Your task to perform on an android device: change the clock display to show seconds Image 0: 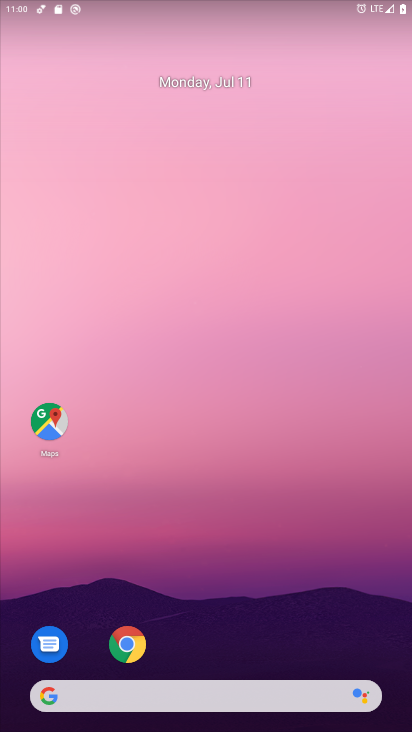
Step 0: drag from (288, 623) to (281, 390)
Your task to perform on an android device: change the clock display to show seconds Image 1: 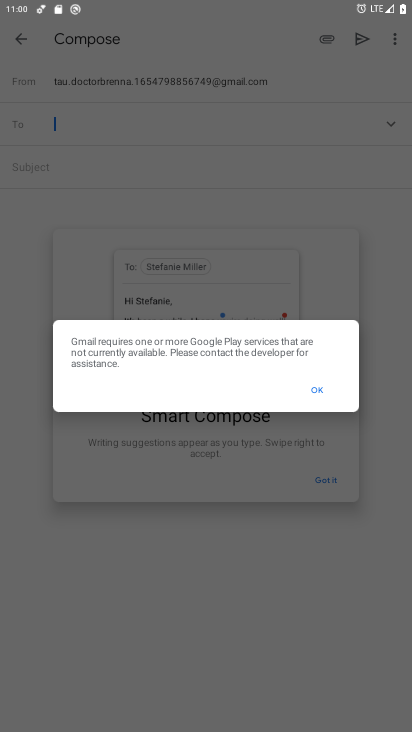
Step 1: click (319, 375)
Your task to perform on an android device: change the clock display to show seconds Image 2: 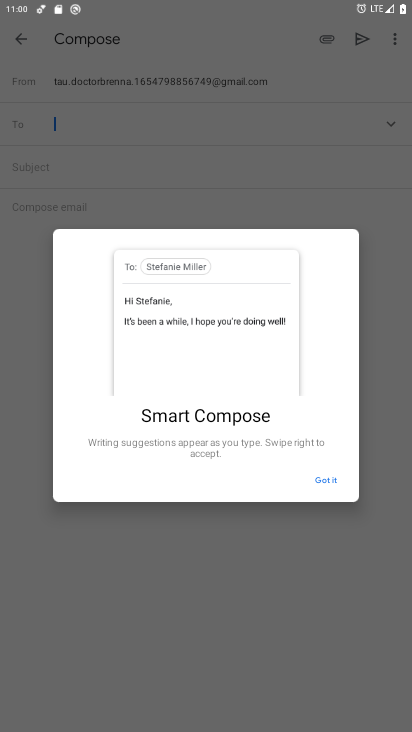
Step 2: click (319, 490)
Your task to perform on an android device: change the clock display to show seconds Image 3: 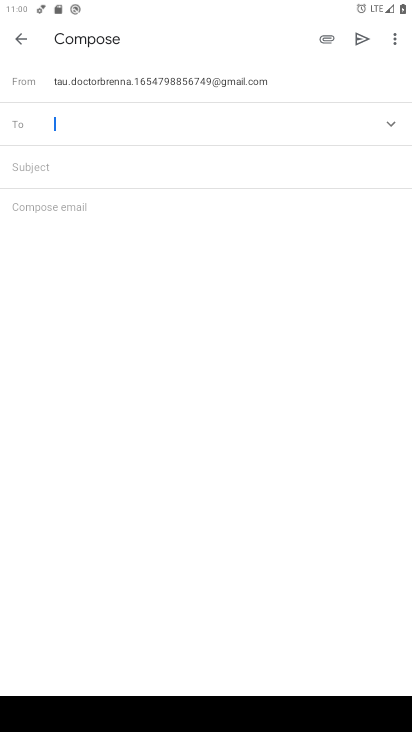
Step 3: press home button
Your task to perform on an android device: change the clock display to show seconds Image 4: 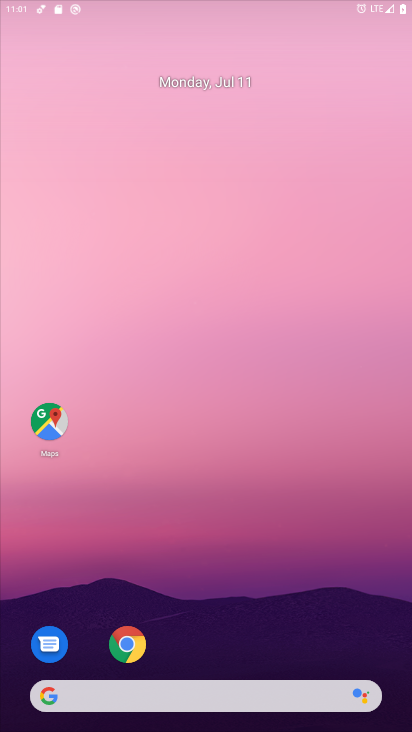
Step 4: drag from (237, 626) to (229, 206)
Your task to perform on an android device: change the clock display to show seconds Image 5: 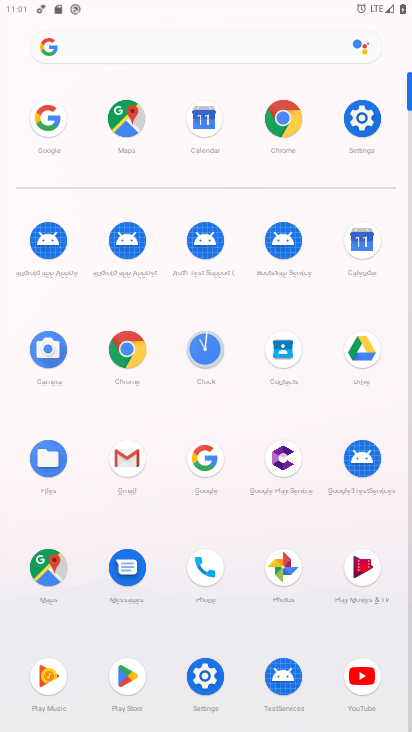
Step 5: click (197, 334)
Your task to perform on an android device: change the clock display to show seconds Image 6: 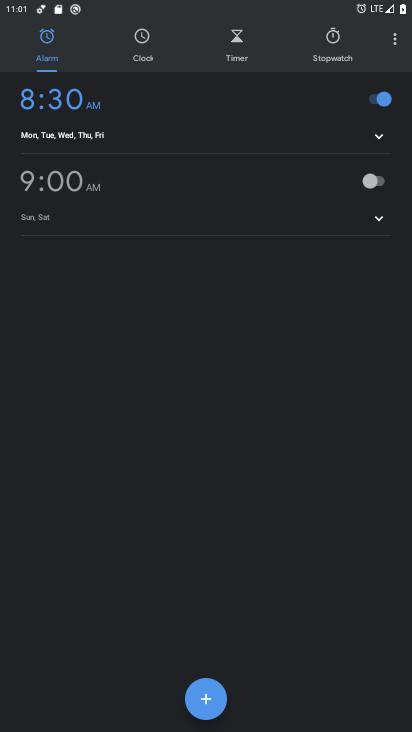
Step 6: click (400, 35)
Your task to perform on an android device: change the clock display to show seconds Image 7: 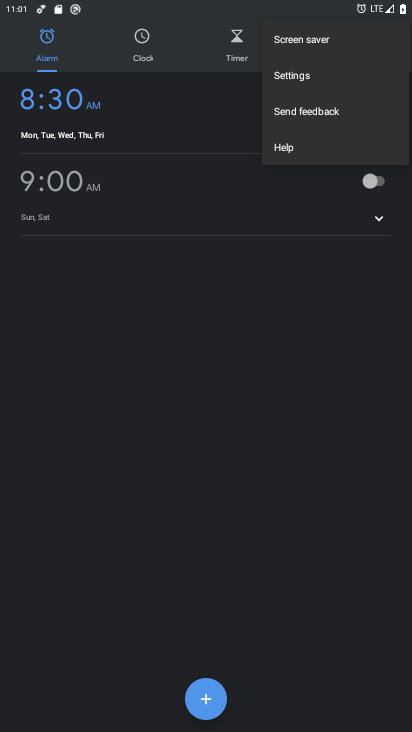
Step 7: click (306, 73)
Your task to perform on an android device: change the clock display to show seconds Image 8: 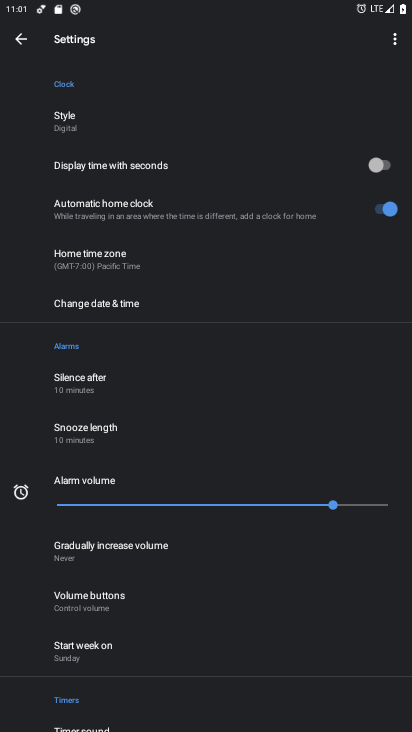
Step 8: click (347, 174)
Your task to perform on an android device: change the clock display to show seconds Image 9: 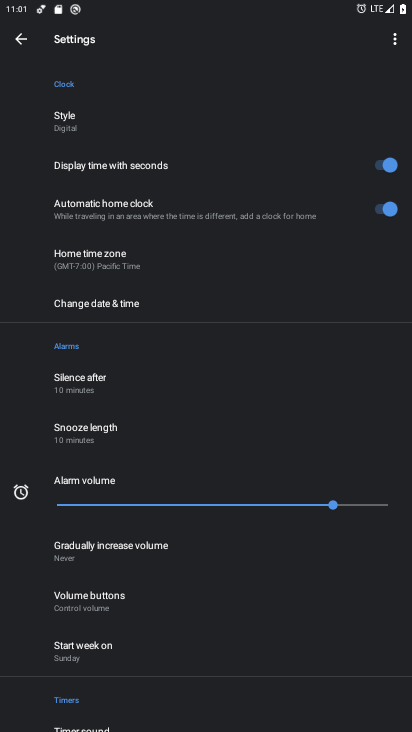
Step 9: task complete